Your task to perform on an android device: toggle notification dots Image 0: 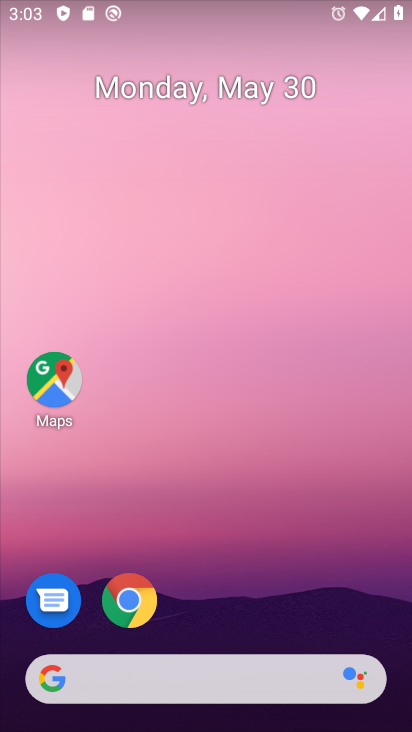
Step 0: drag from (188, 707) to (188, 60)
Your task to perform on an android device: toggle notification dots Image 1: 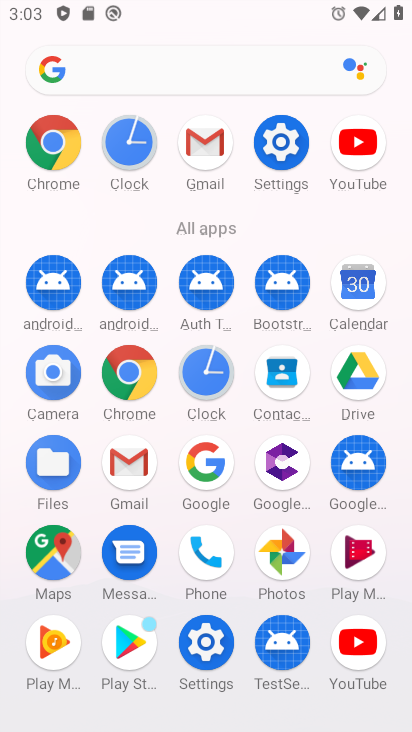
Step 1: click (286, 144)
Your task to perform on an android device: toggle notification dots Image 2: 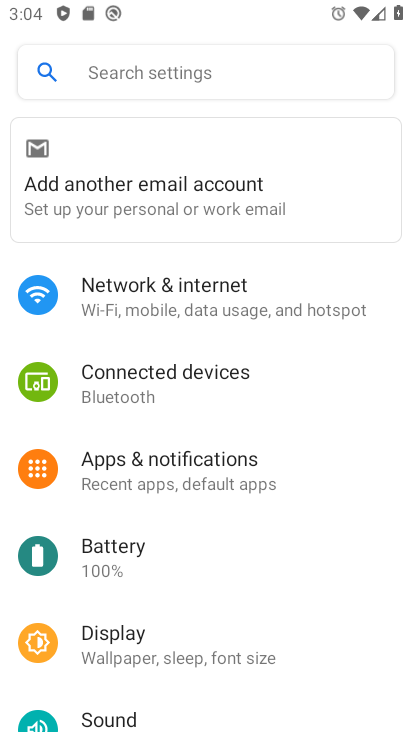
Step 2: click (127, 470)
Your task to perform on an android device: toggle notification dots Image 3: 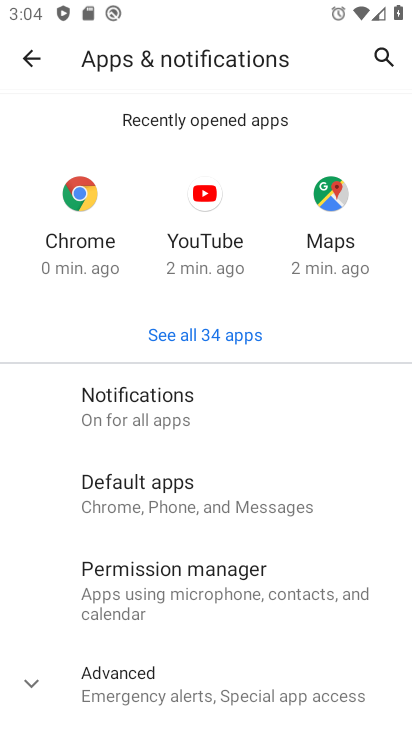
Step 3: click (143, 405)
Your task to perform on an android device: toggle notification dots Image 4: 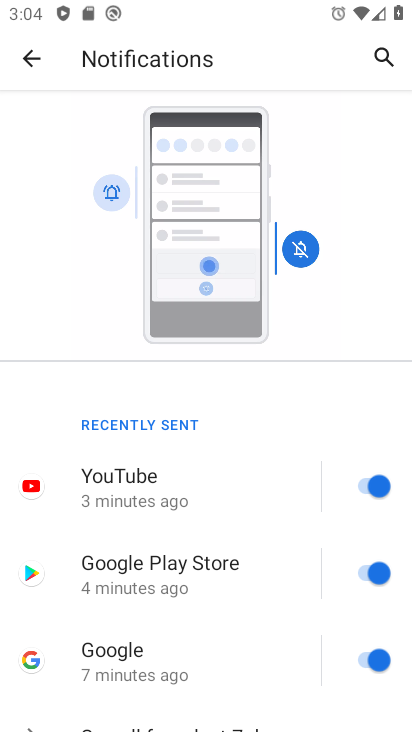
Step 4: drag from (204, 710) to (192, 348)
Your task to perform on an android device: toggle notification dots Image 5: 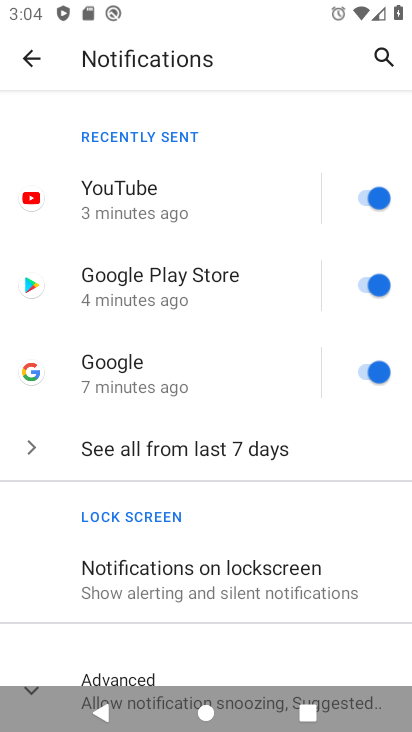
Step 5: drag from (205, 664) to (208, 338)
Your task to perform on an android device: toggle notification dots Image 6: 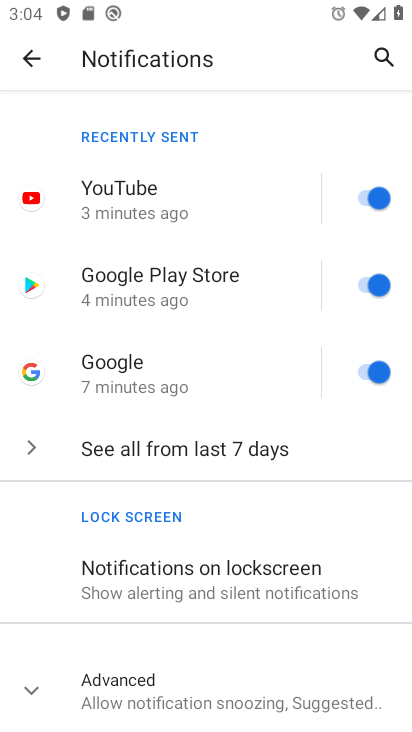
Step 6: click (164, 680)
Your task to perform on an android device: toggle notification dots Image 7: 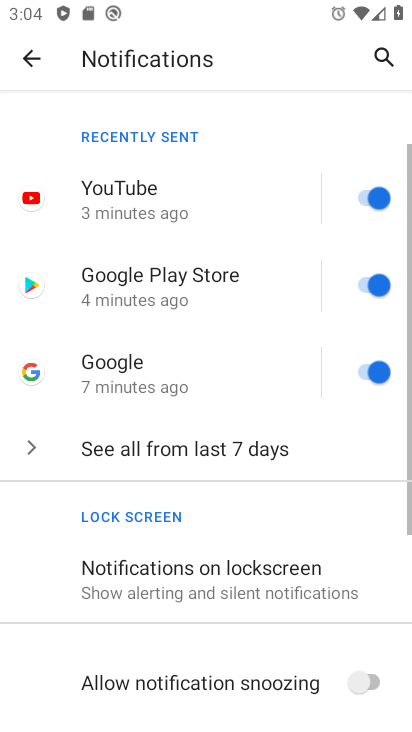
Step 7: drag from (238, 697) to (230, 215)
Your task to perform on an android device: toggle notification dots Image 8: 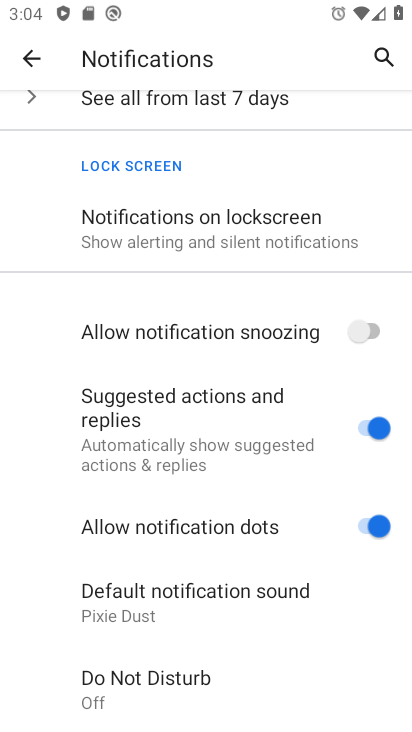
Step 8: click (369, 534)
Your task to perform on an android device: toggle notification dots Image 9: 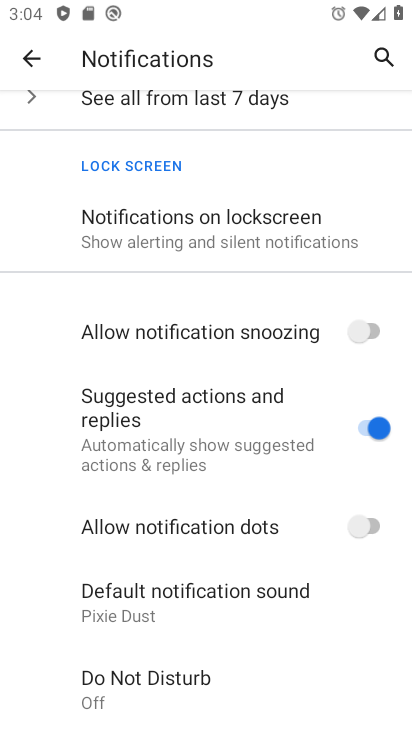
Step 9: task complete